Your task to perform on an android device: What's the weather going to be this weekend? Image 0: 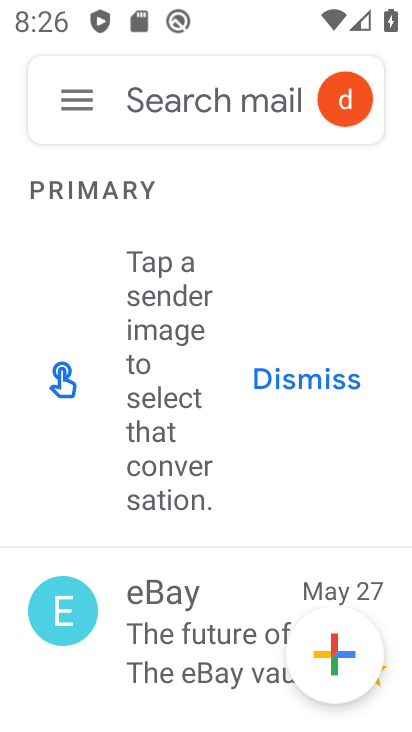
Step 0: press back button
Your task to perform on an android device: What's the weather going to be this weekend? Image 1: 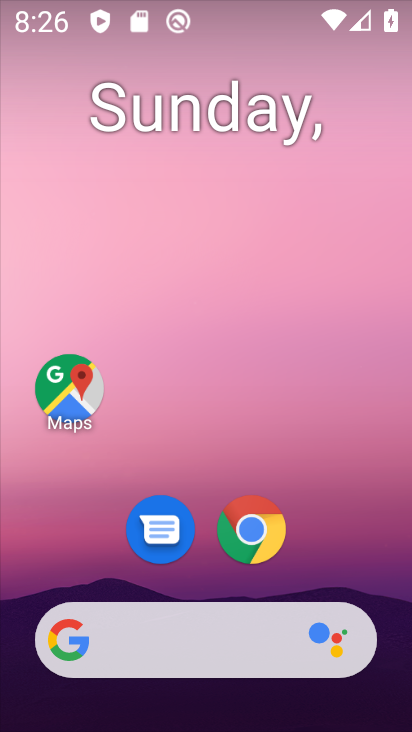
Step 1: drag from (20, 230) to (403, 413)
Your task to perform on an android device: What's the weather going to be this weekend? Image 2: 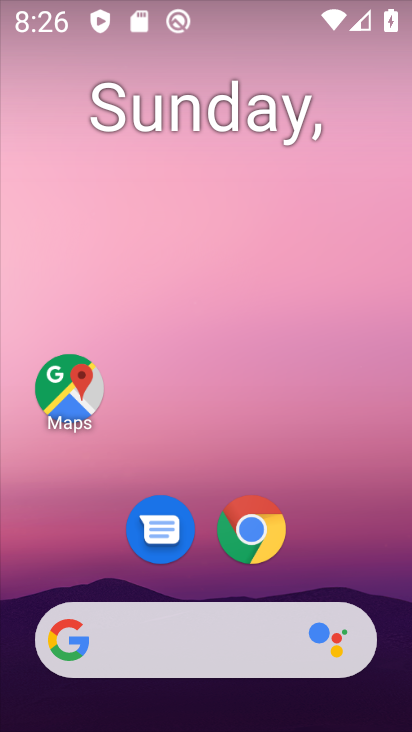
Step 2: drag from (18, 230) to (342, 435)
Your task to perform on an android device: What's the weather going to be this weekend? Image 3: 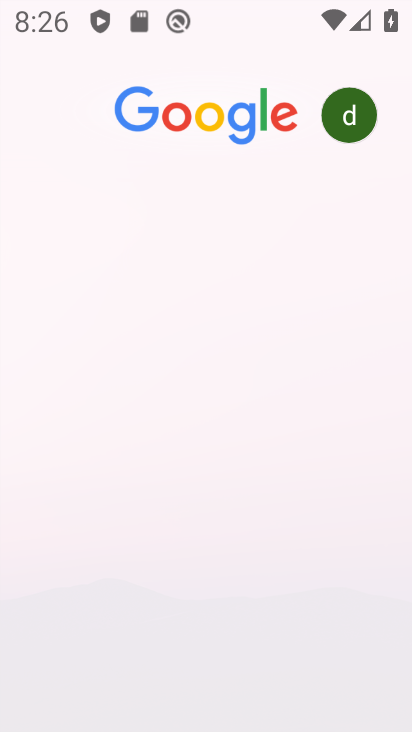
Step 3: drag from (18, 207) to (390, 376)
Your task to perform on an android device: What's the weather going to be this weekend? Image 4: 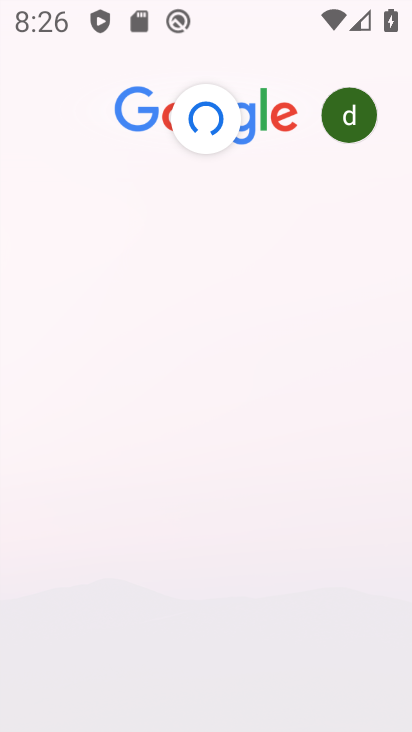
Step 4: click (65, 170)
Your task to perform on an android device: What's the weather going to be this weekend? Image 5: 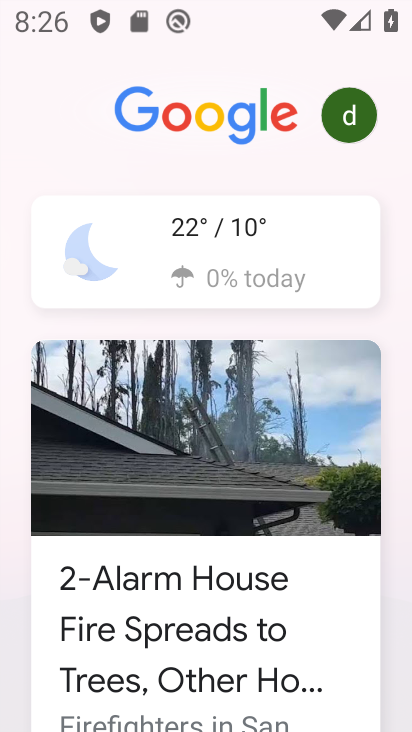
Step 5: click (184, 245)
Your task to perform on an android device: What's the weather going to be this weekend? Image 6: 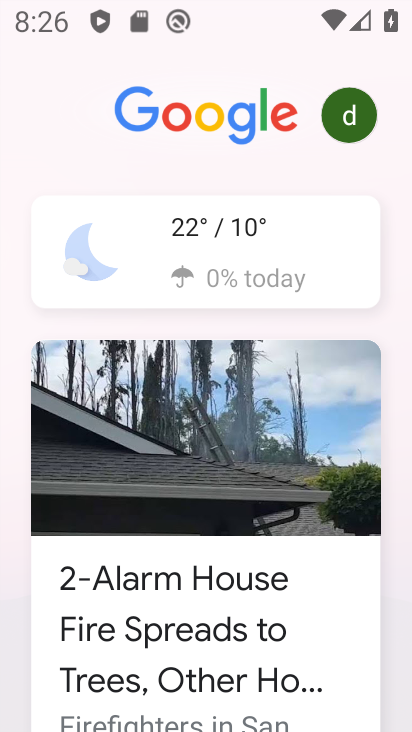
Step 6: click (185, 251)
Your task to perform on an android device: What's the weather going to be this weekend? Image 7: 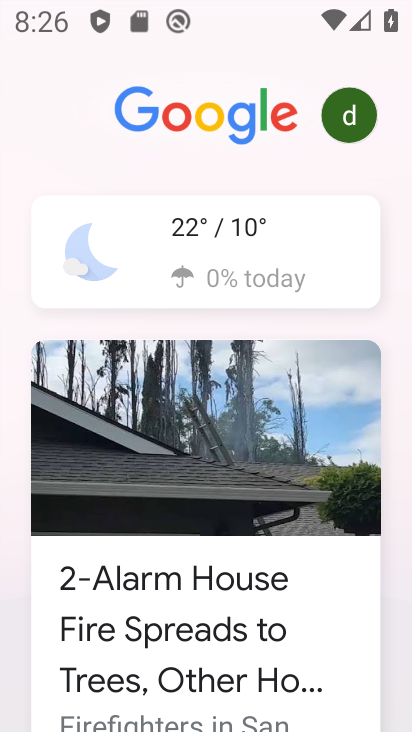
Step 7: click (188, 259)
Your task to perform on an android device: What's the weather going to be this weekend? Image 8: 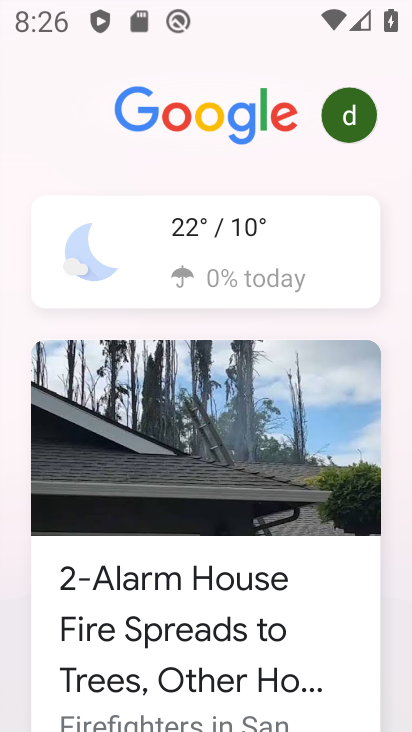
Step 8: click (188, 259)
Your task to perform on an android device: What's the weather going to be this weekend? Image 9: 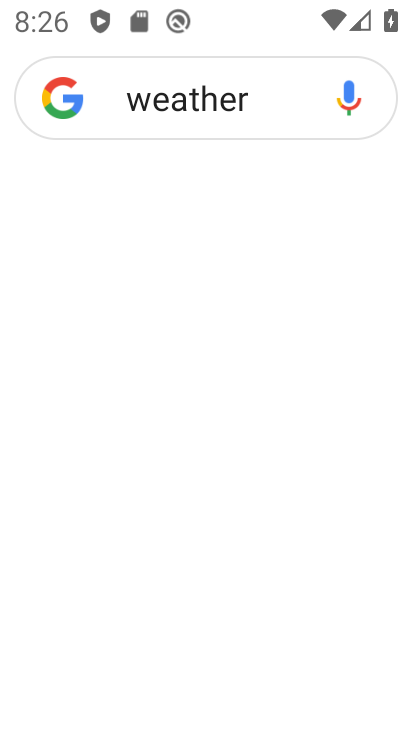
Step 9: click (188, 259)
Your task to perform on an android device: What's the weather going to be this weekend? Image 10: 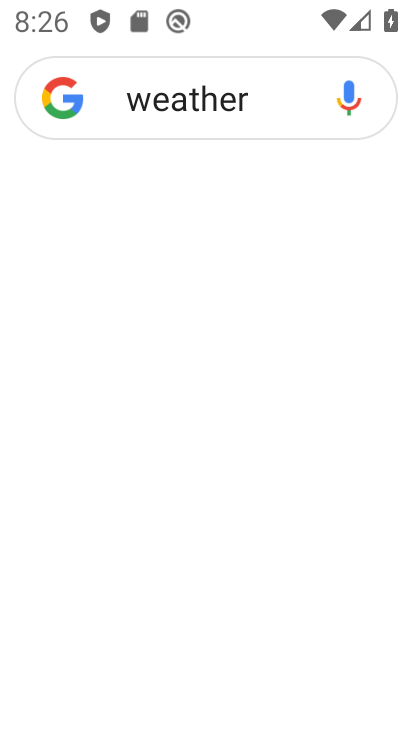
Step 10: click (189, 258)
Your task to perform on an android device: What's the weather going to be this weekend? Image 11: 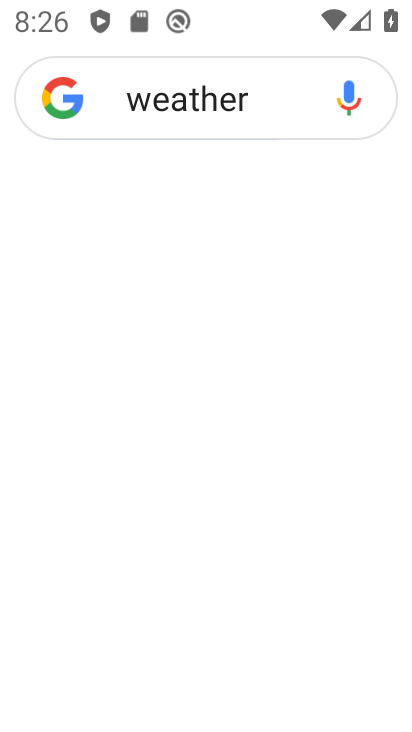
Step 11: click (189, 258)
Your task to perform on an android device: What's the weather going to be this weekend? Image 12: 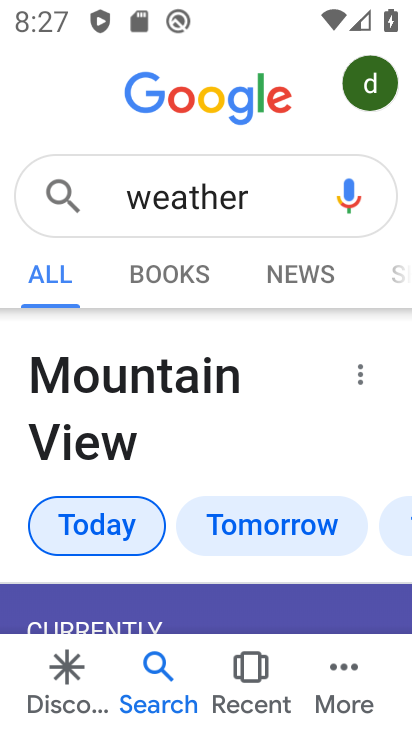
Step 12: drag from (260, 399) to (270, 193)
Your task to perform on an android device: What's the weather going to be this weekend? Image 13: 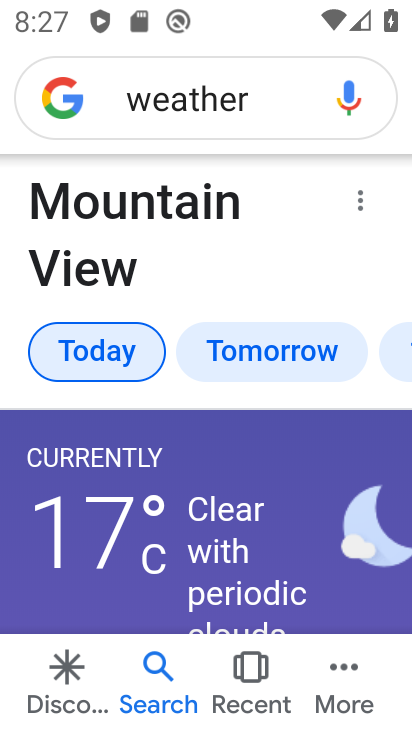
Step 13: click (271, 193)
Your task to perform on an android device: What's the weather going to be this weekend? Image 14: 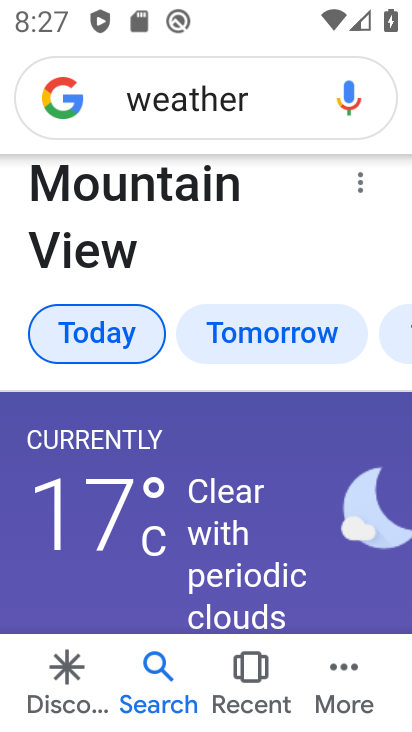
Step 14: task complete